Your task to perform on an android device: Go to wifi settings Image 0: 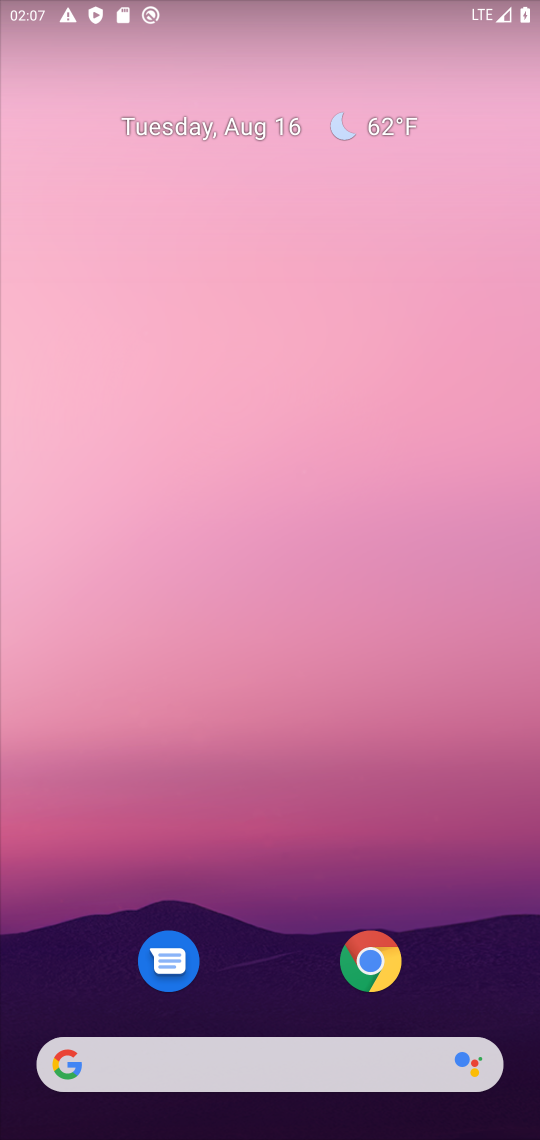
Step 0: press home button
Your task to perform on an android device: Go to wifi settings Image 1: 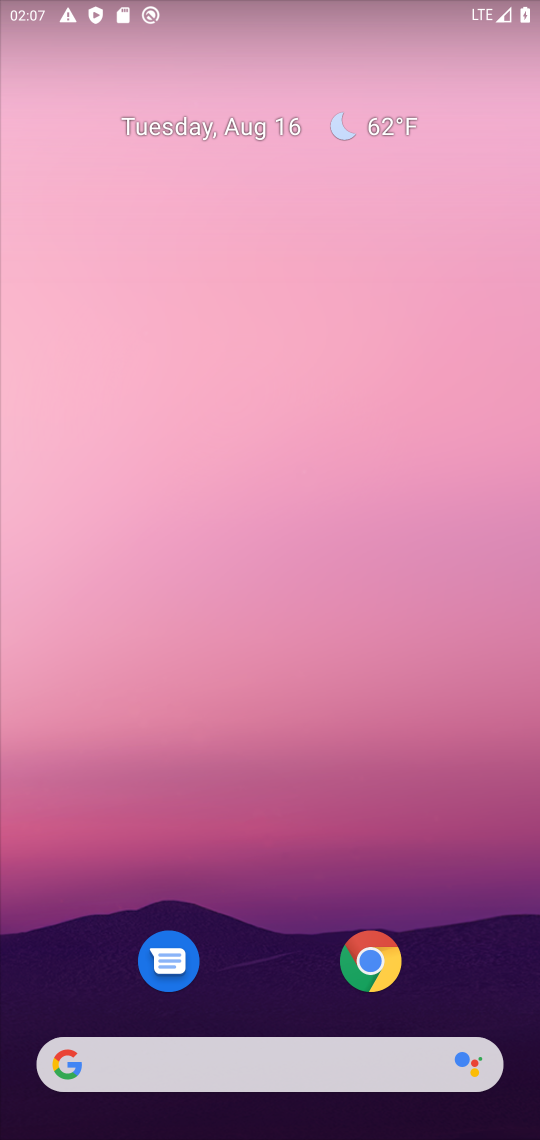
Step 1: drag from (216, 1008) to (504, 33)
Your task to perform on an android device: Go to wifi settings Image 2: 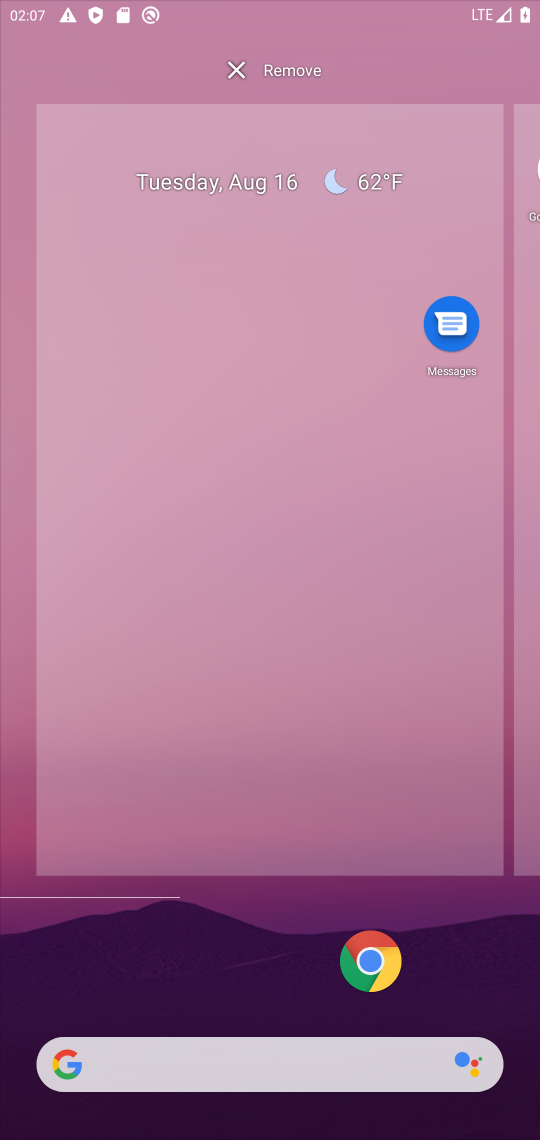
Step 2: press home button
Your task to perform on an android device: Go to wifi settings Image 3: 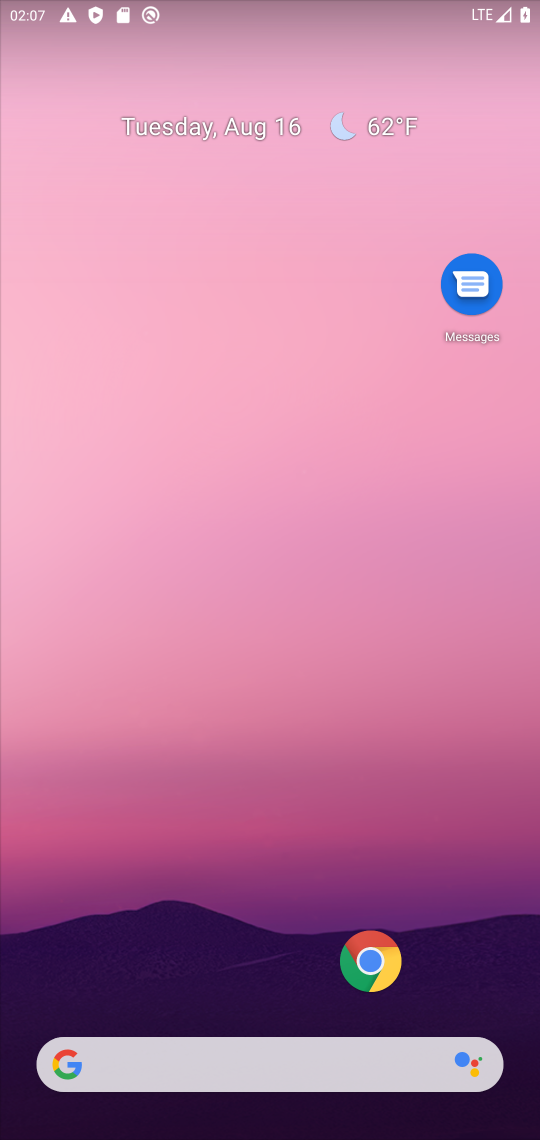
Step 3: press home button
Your task to perform on an android device: Go to wifi settings Image 4: 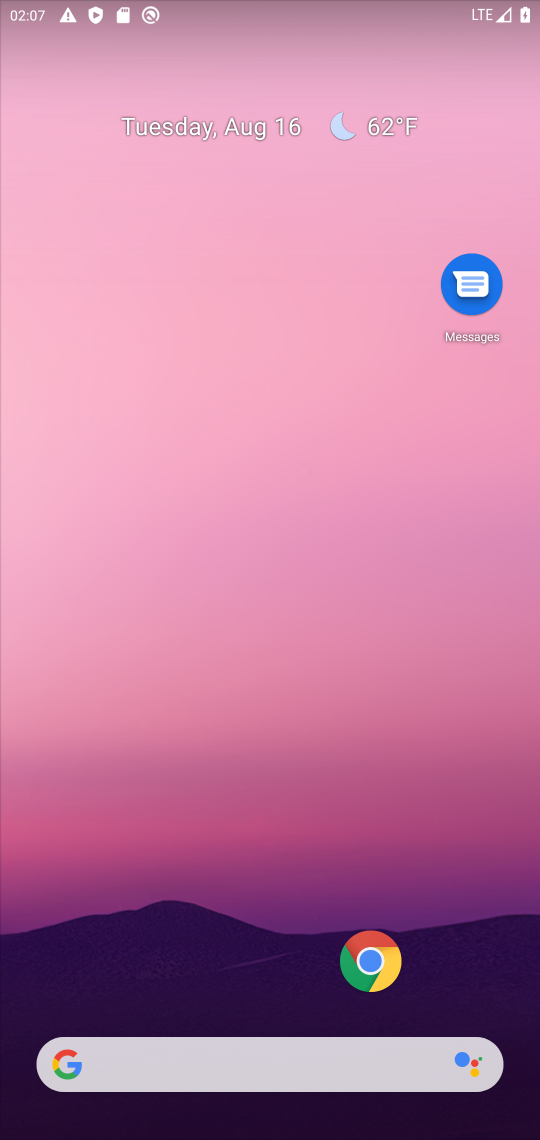
Step 4: press home button
Your task to perform on an android device: Go to wifi settings Image 5: 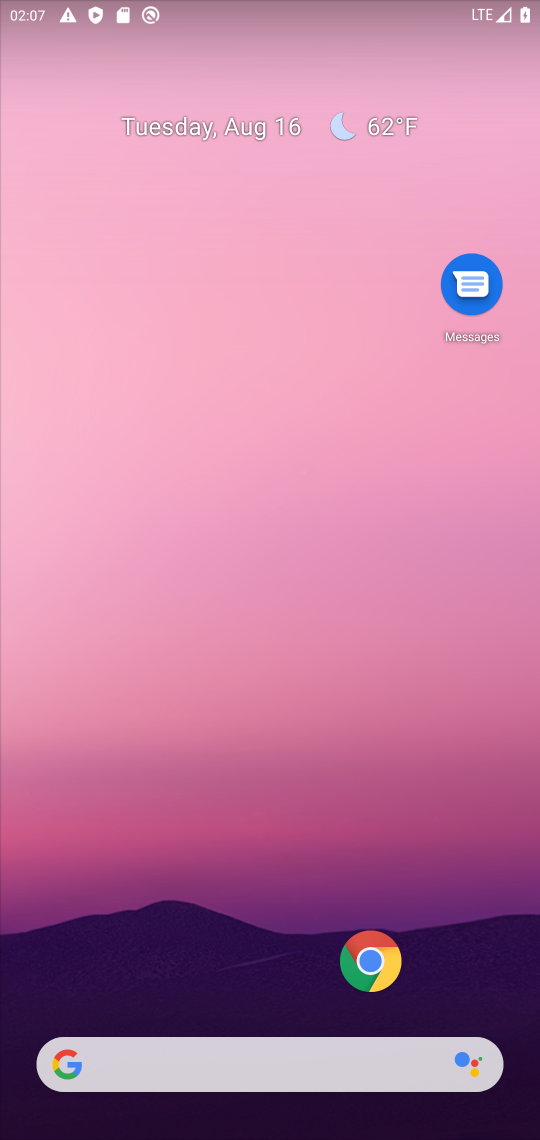
Step 5: press home button
Your task to perform on an android device: Go to wifi settings Image 6: 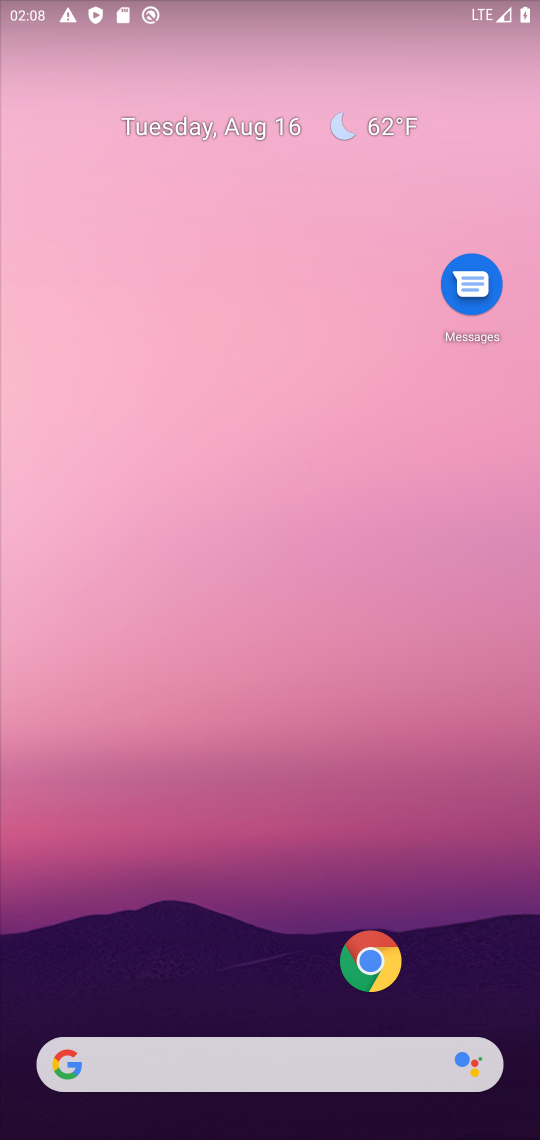
Step 6: drag from (230, 900) to (226, 59)
Your task to perform on an android device: Go to wifi settings Image 7: 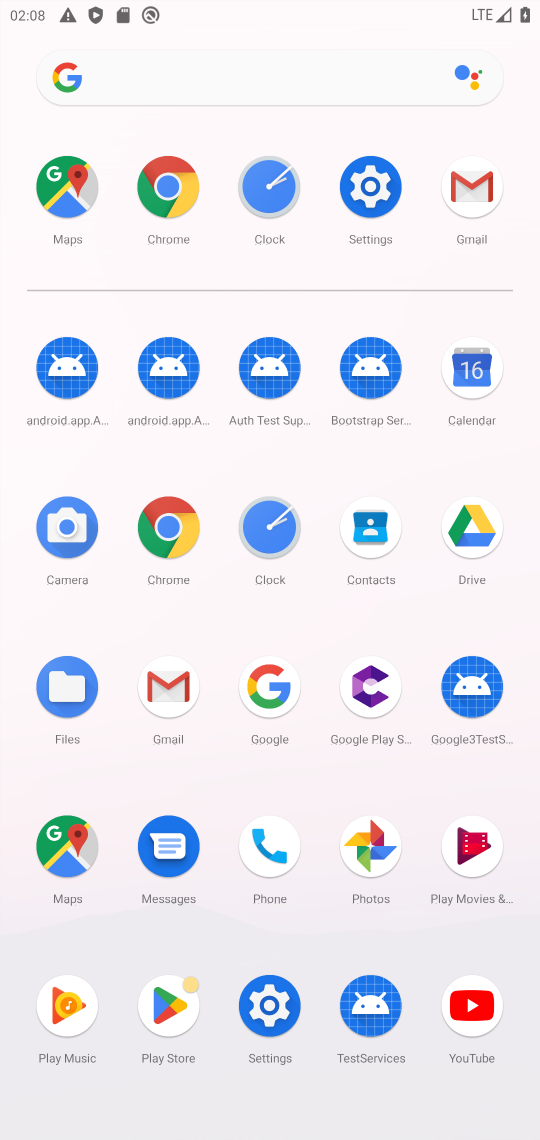
Step 7: drag from (508, 10) to (495, 364)
Your task to perform on an android device: Go to wifi settings Image 8: 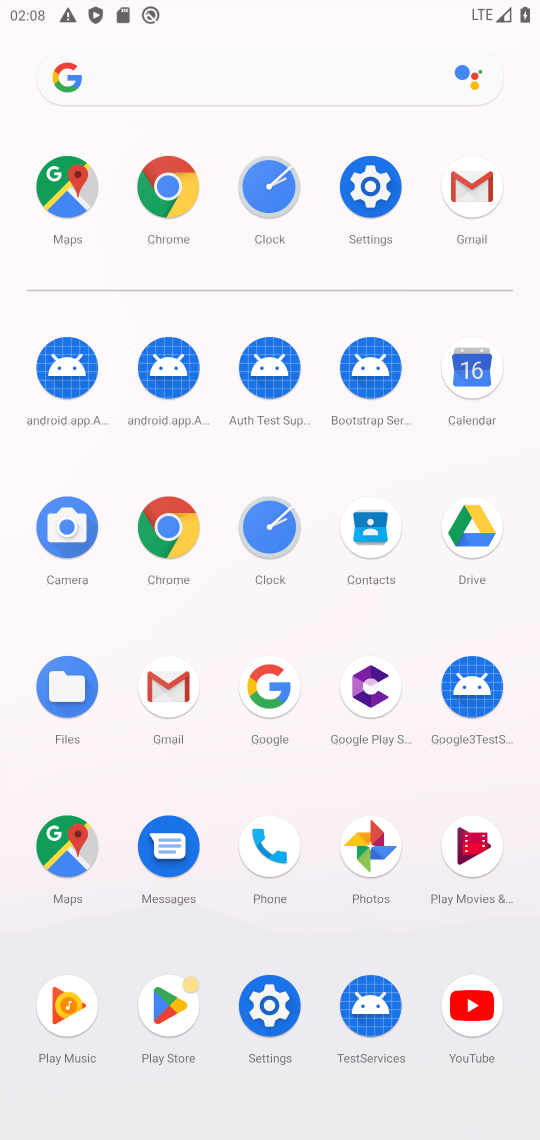
Step 8: drag from (514, 9) to (179, 1092)
Your task to perform on an android device: Go to wifi settings Image 9: 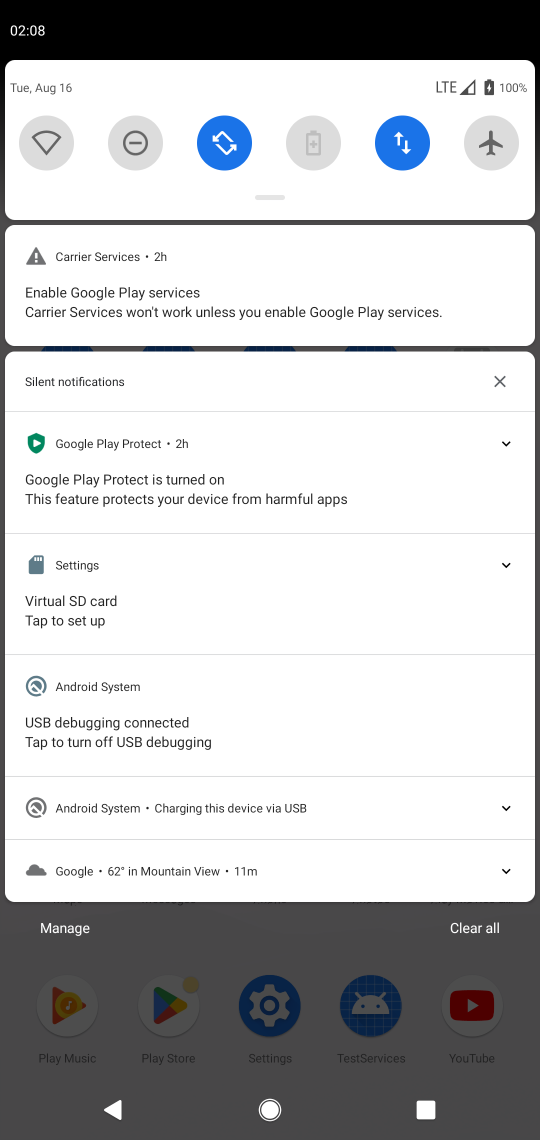
Step 9: click (52, 140)
Your task to perform on an android device: Go to wifi settings Image 10: 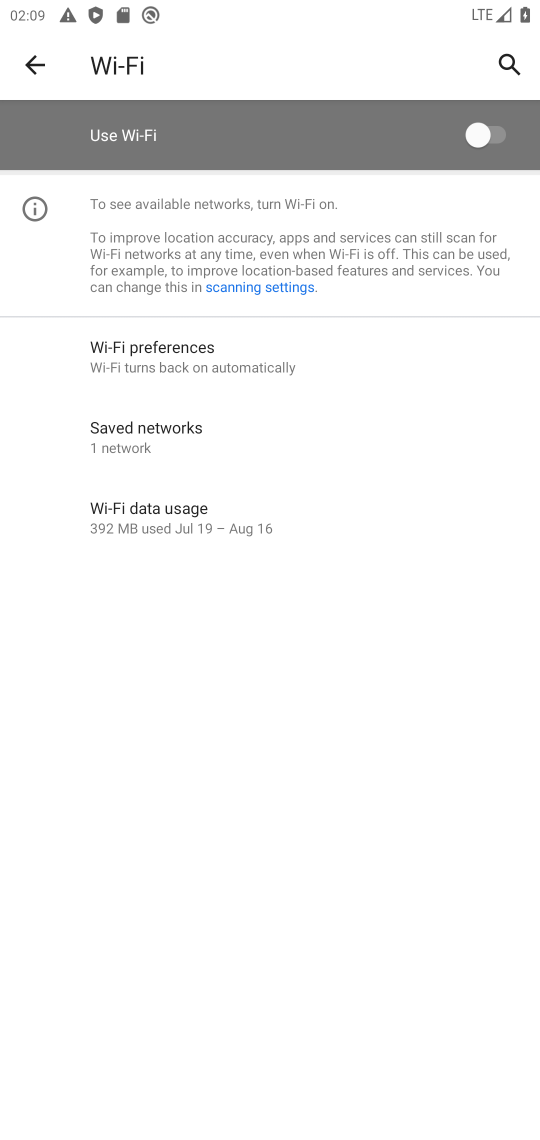
Step 10: task complete